Your task to perform on an android device: Turn off the flashlight Image 0: 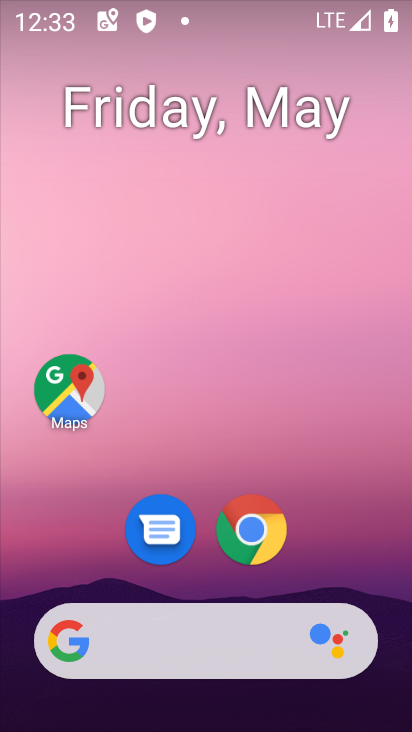
Step 0: drag from (283, 452) to (172, 118)
Your task to perform on an android device: Turn off the flashlight Image 1: 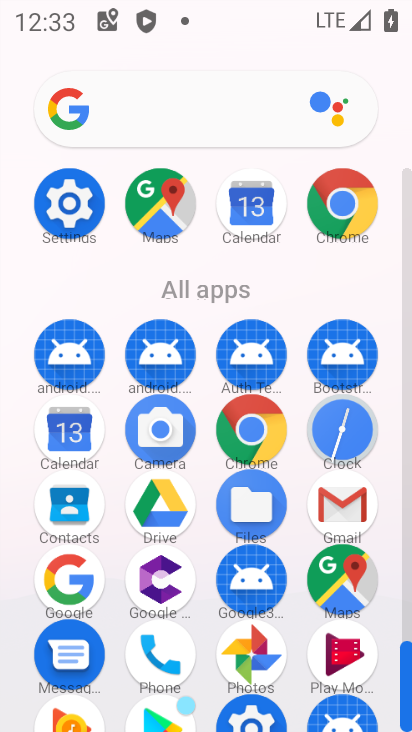
Step 1: click (68, 215)
Your task to perform on an android device: Turn off the flashlight Image 2: 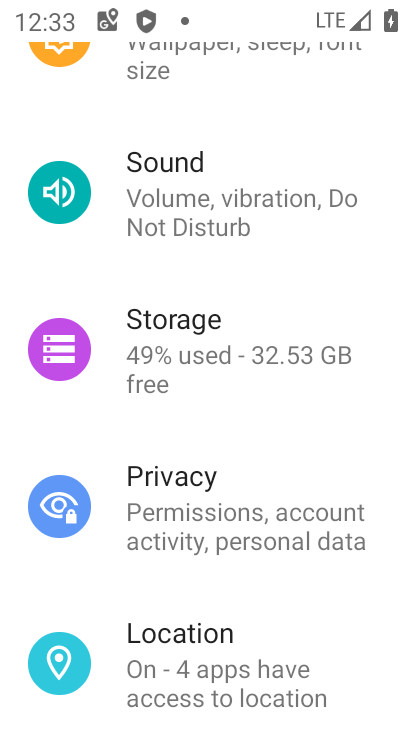
Step 2: drag from (240, 173) to (233, 508)
Your task to perform on an android device: Turn off the flashlight Image 3: 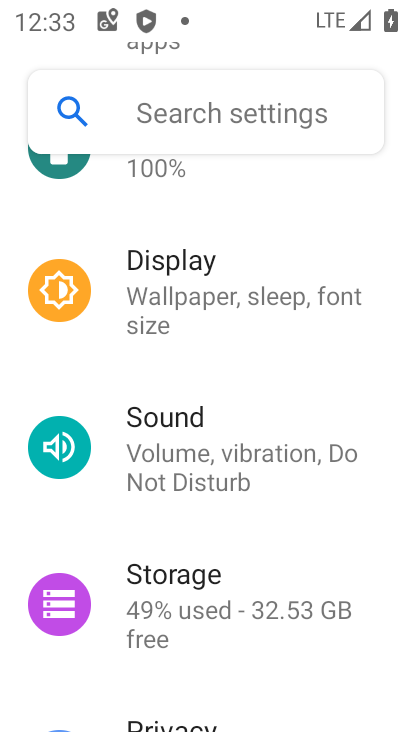
Step 3: click (216, 122)
Your task to perform on an android device: Turn off the flashlight Image 4: 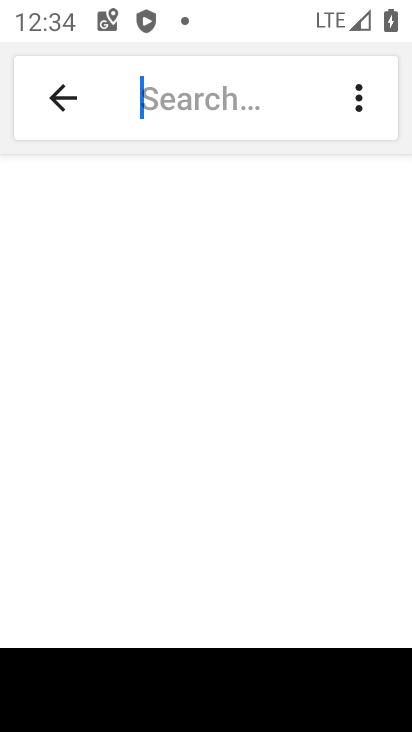
Step 4: type "flashlight"
Your task to perform on an android device: Turn off the flashlight Image 5: 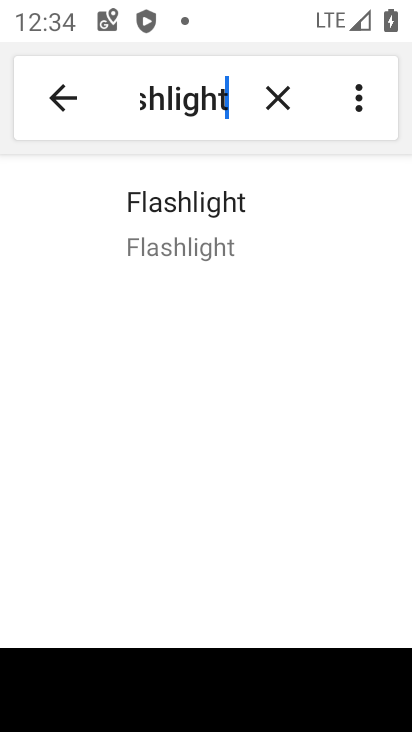
Step 5: click (196, 231)
Your task to perform on an android device: Turn off the flashlight Image 6: 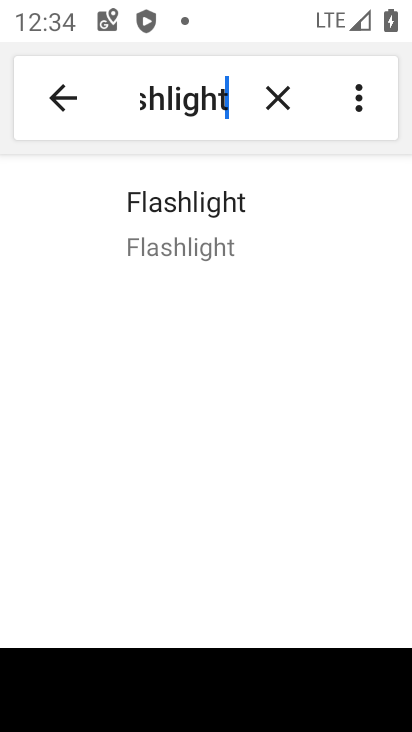
Step 6: click (162, 242)
Your task to perform on an android device: Turn off the flashlight Image 7: 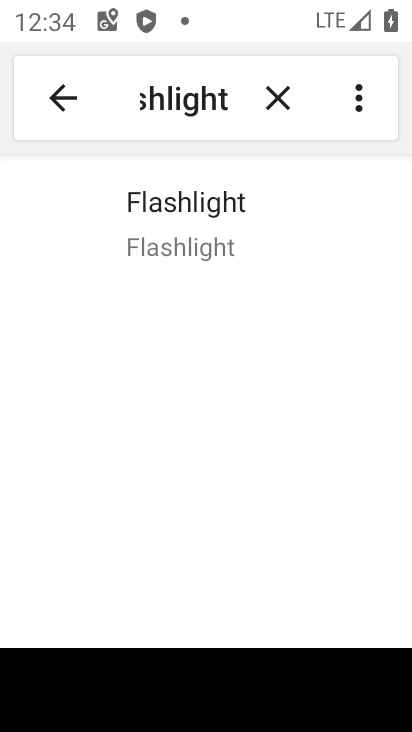
Step 7: click (161, 242)
Your task to perform on an android device: Turn off the flashlight Image 8: 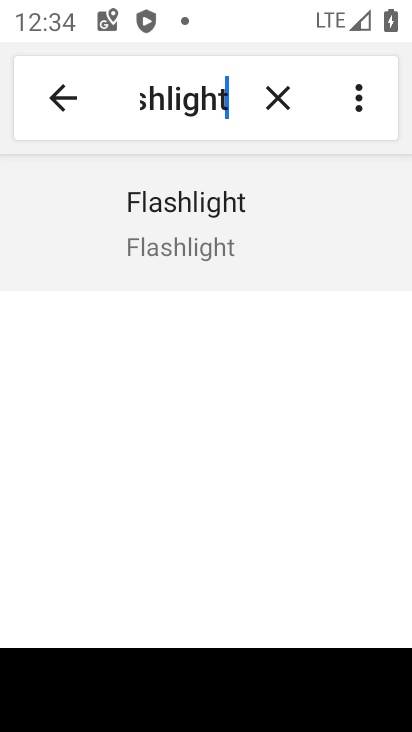
Step 8: click (161, 242)
Your task to perform on an android device: Turn off the flashlight Image 9: 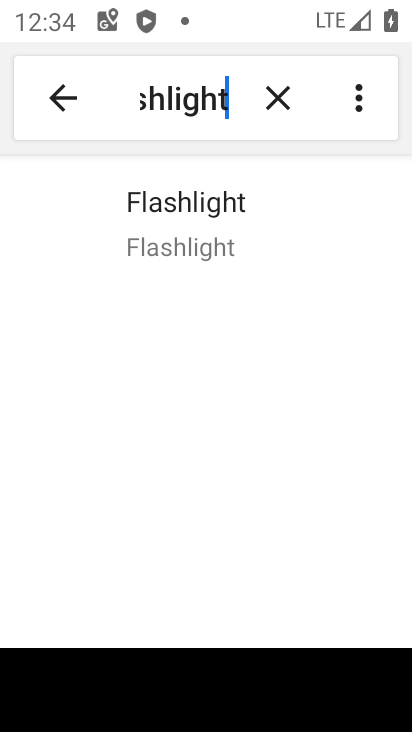
Step 9: click (161, 242)
Your task to perform on an android device: Turn off the flashlight Image 10: 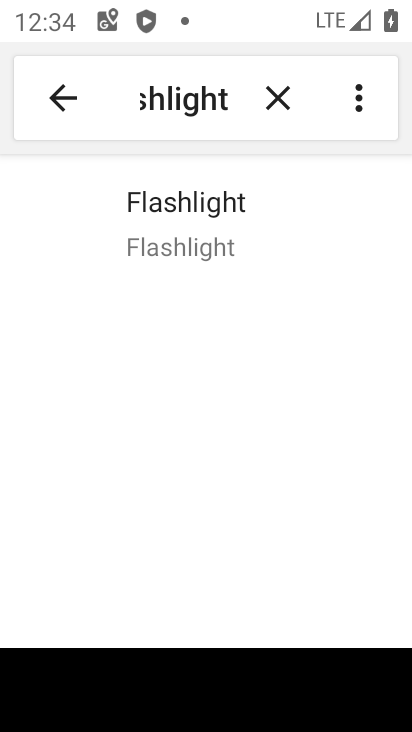
Step 10: click (161, 242)
Your task to perform on an android device: Turn off the flashlight Image 11: 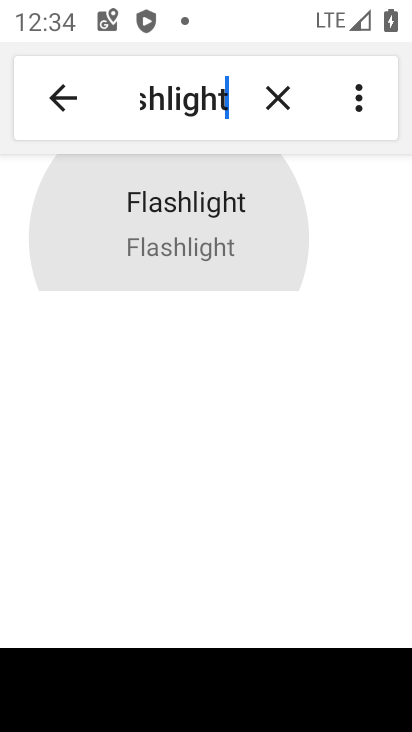
Step 11: click (161, 242)
Your task to perform on an android device: Turn off the flashlight Image 12: 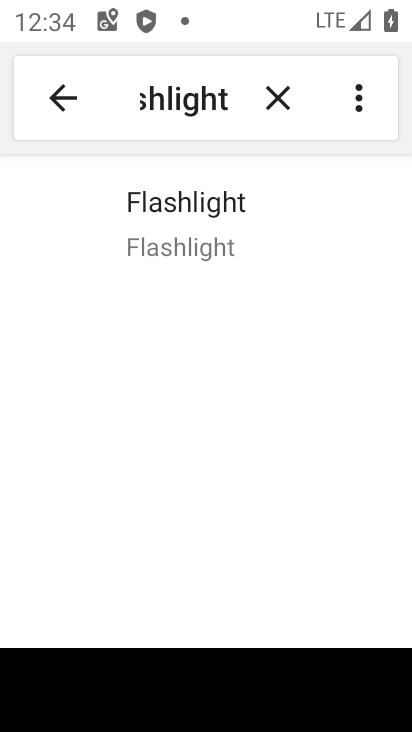
Step 12: click (161, 242)
Your task to perform on an android device: Turn off the flashlight Image 13: 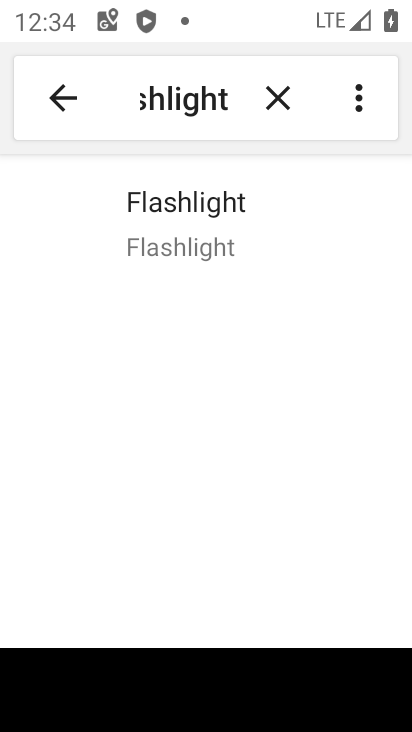
Step 13: click (161, 244)
Your task to perform on an android device: Turn off the flashlight Image 14: 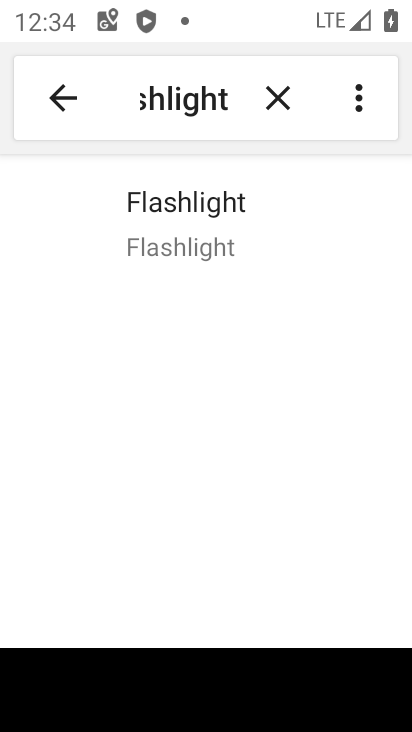
Step 14: task complete